Your task to perform on an android device: turn on showing notifications on the lock screen Image 0: 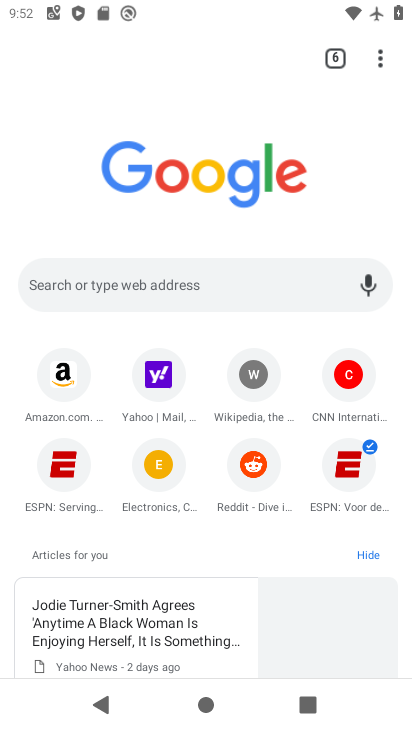
Step 0: press home button
Your task to perform on an android device: turn on showing notifications on the lock screen Image 1: 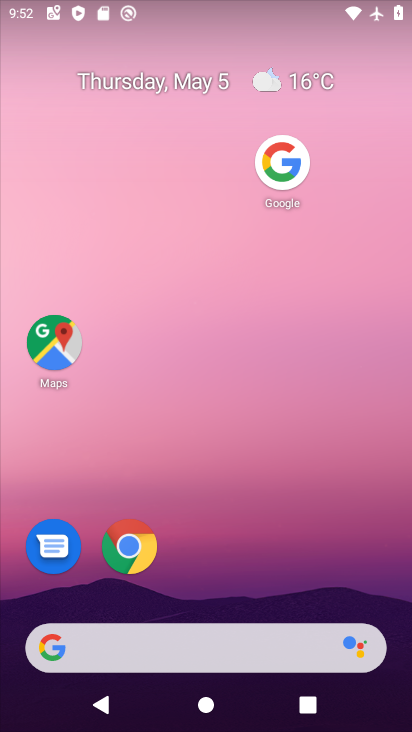
Step 1: drag from (153, 646) to (302, 123)
Your task to perform on an android device: turn on showing notifications on the lock screen Image 2: 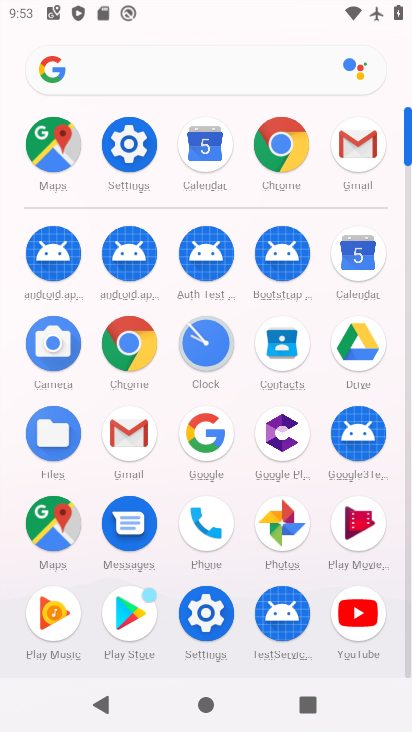
Step 2: click (121, 152)
Your task to perform on an android device: turn on showing notifications on the lock screen Image 3: 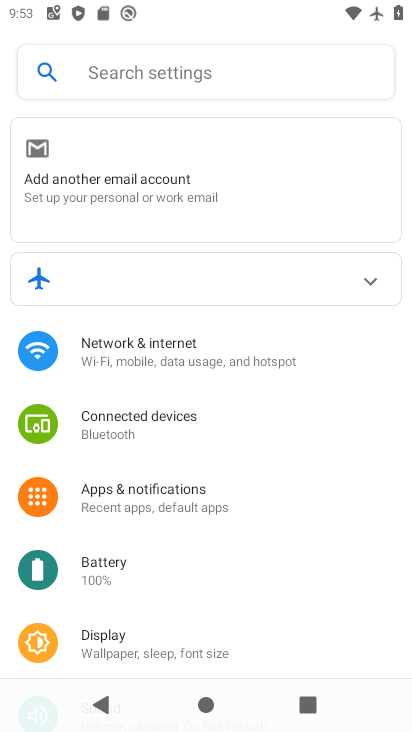
Step 3: click (179, 496)
Your task to perform on an android device: turn on showing notifications on the lock screen Image 4: 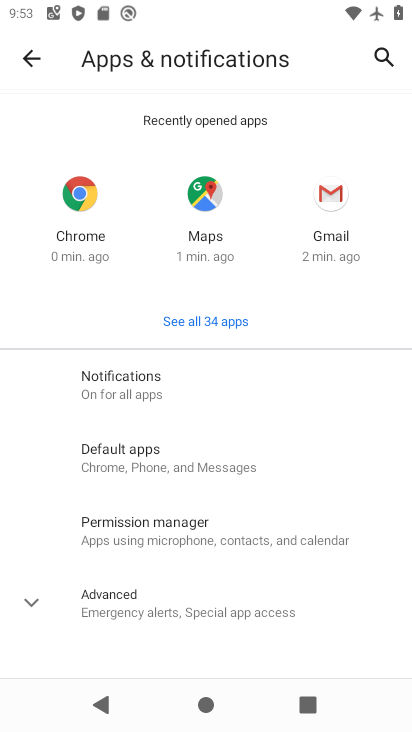
Step 4: click (135, 384)
Your task to perform on an android device: turn on showing notifications on the lock screen Image 5: 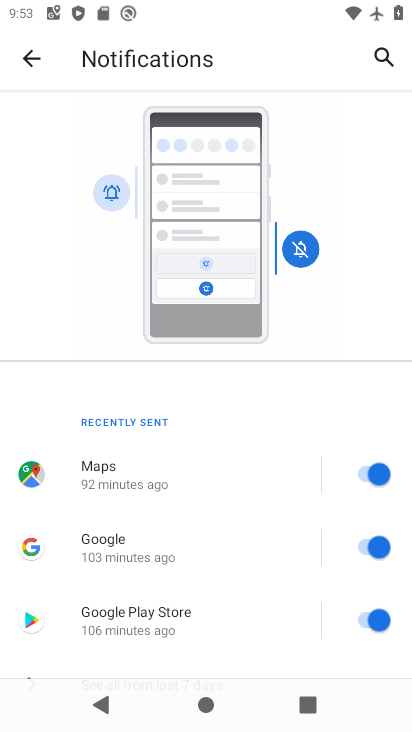
Step 5: drag from (184, 633) to (373, 73)
Your task to perform on an android device: turn on showing notifications on the lock screen Image 6: 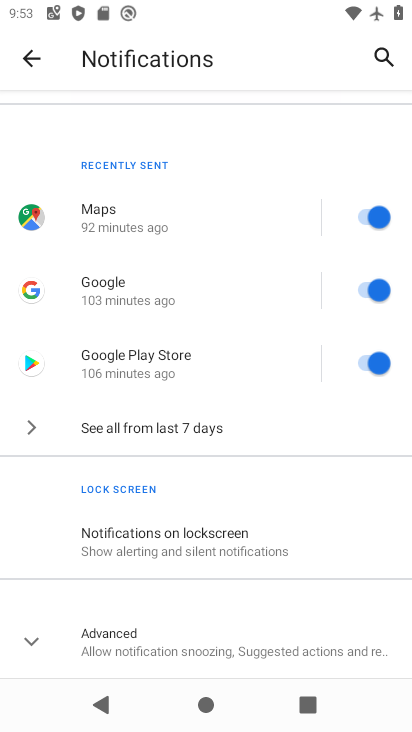
Step 6: click (242, 543)
Your task to perform on an android device: turn on showing notifications on the lock screen Image 7: 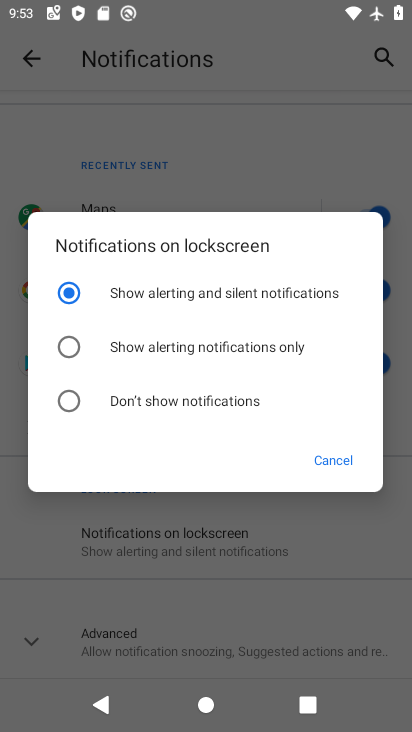
Step 7: task complete